Your task to perform on an android device: Open the map Image 0: 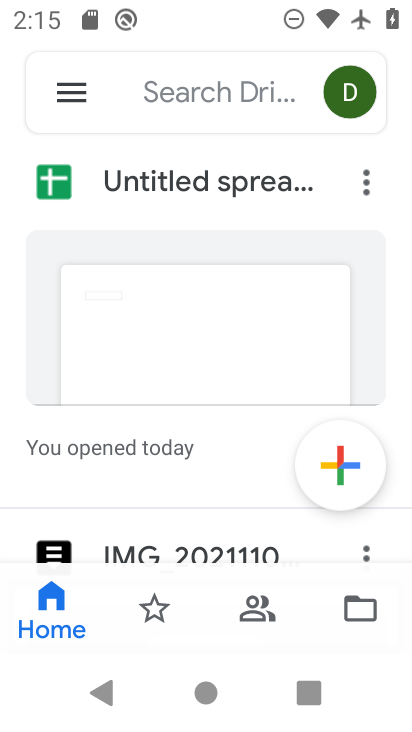
Step 0: press home button
Your task to perform on an android device: Open the map Image 1: 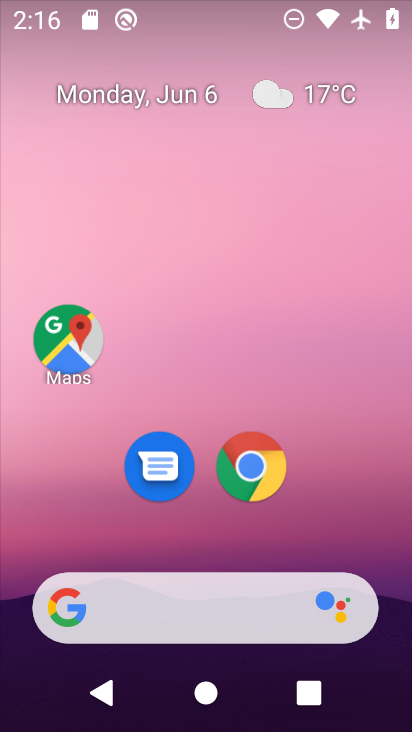
Step 1: click (59, 332)
Your task to perform on an android device: Open the map Image 2: 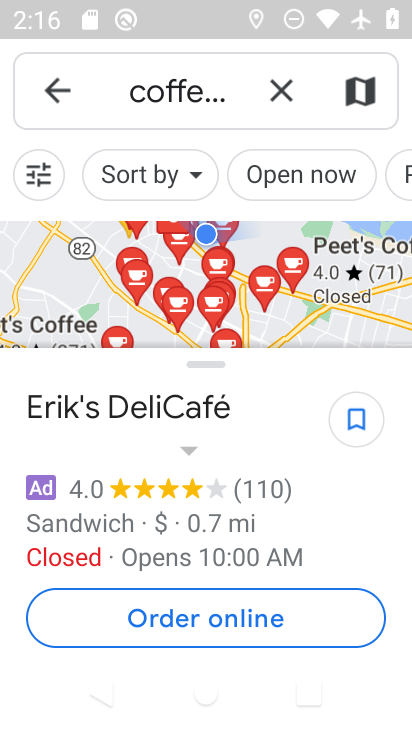
Step 2: click (281, 90)
Your task to perform on an android device: Open the map Image 3: 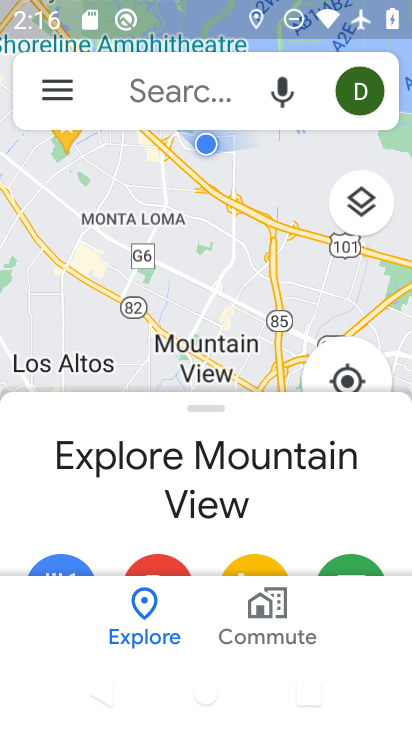
Step 3: task complete